Your task to perform on an android device: install app "Walmart Shopping & Grocery" Image 0: 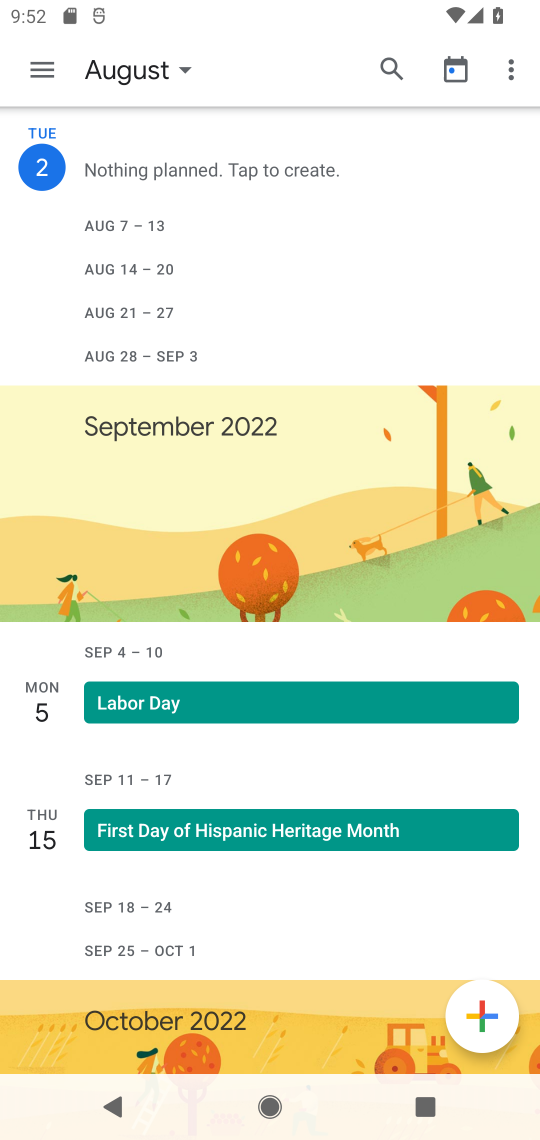
Step 0: press home button
Your task to perform on an android device: install app "Walmart Shopping & Grocery" Image 1: 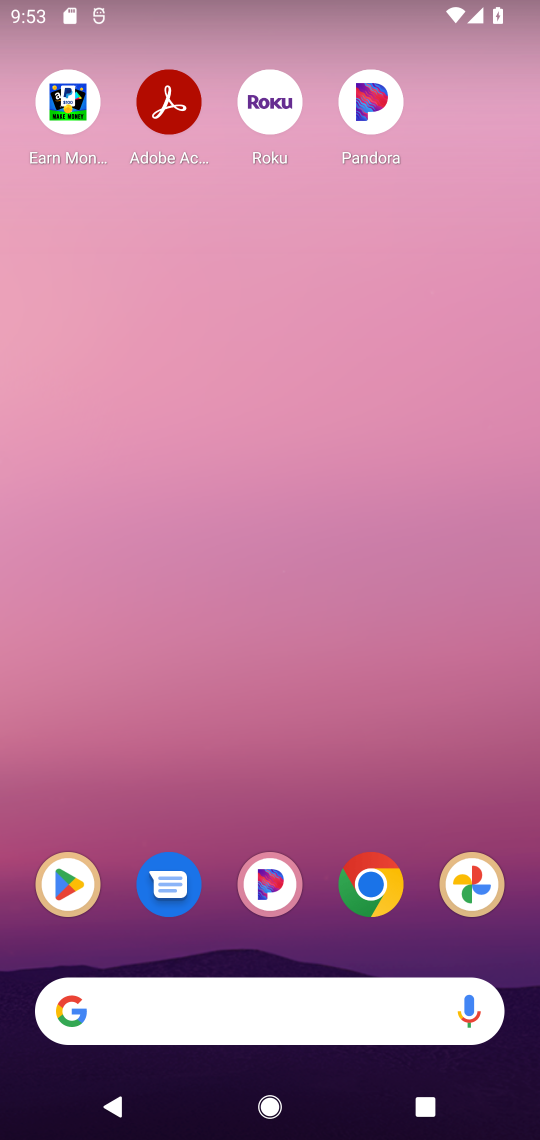
Step 1: click (60, 893)
Your task to perform on an android device: install app "Walmart Shopping & Grocery" Image 2: 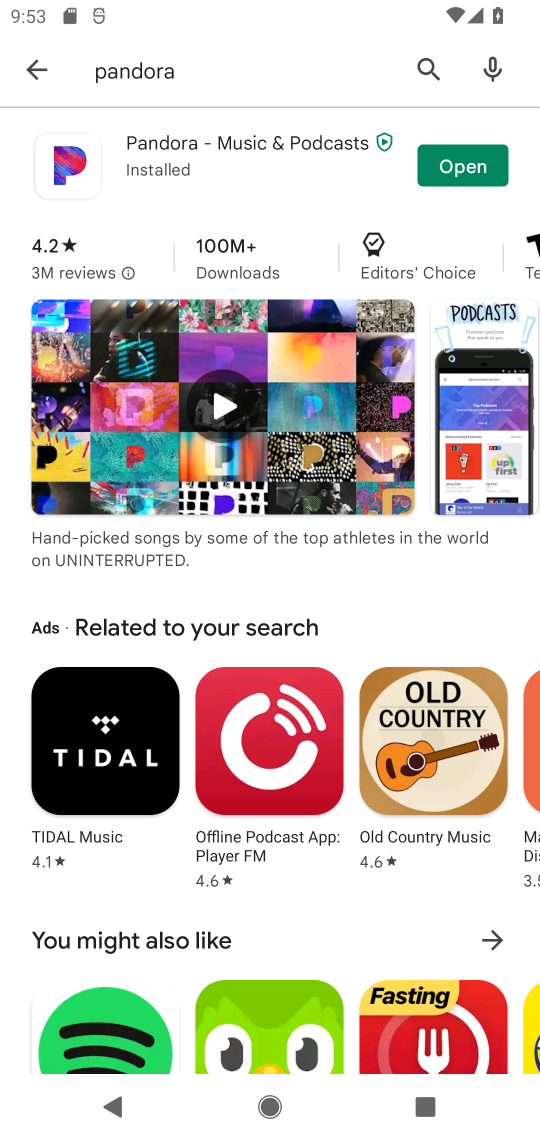
Step 2: click (196, 55)
Your task to perform on an android device: install app "Walmart Shopping & Grocery" Image 3: 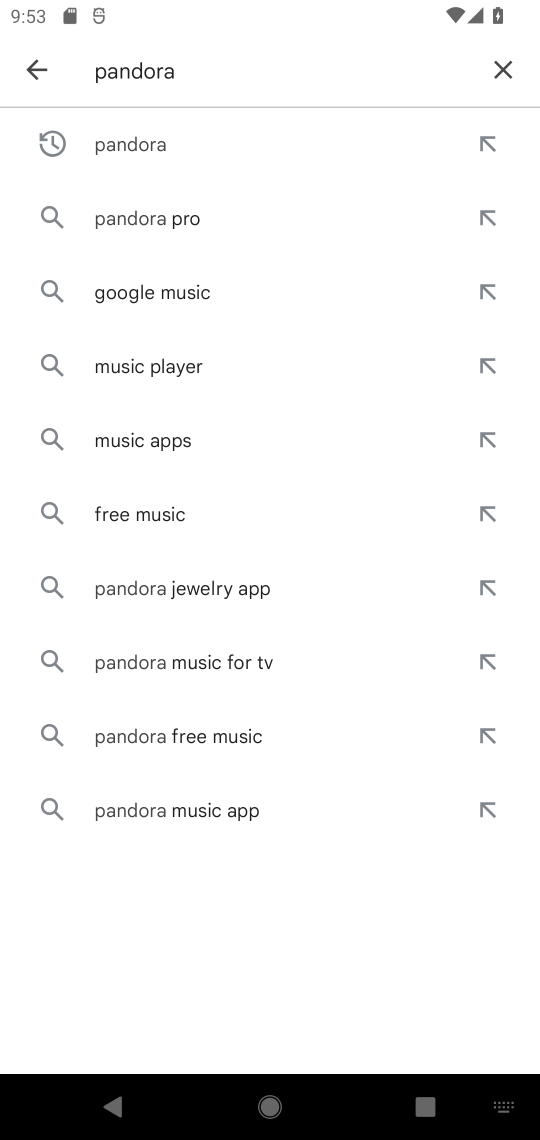
Step 3: click (505, 65)
Your task to perform on an android device: install app "Walmart Shopping & Grocery" Image 4: 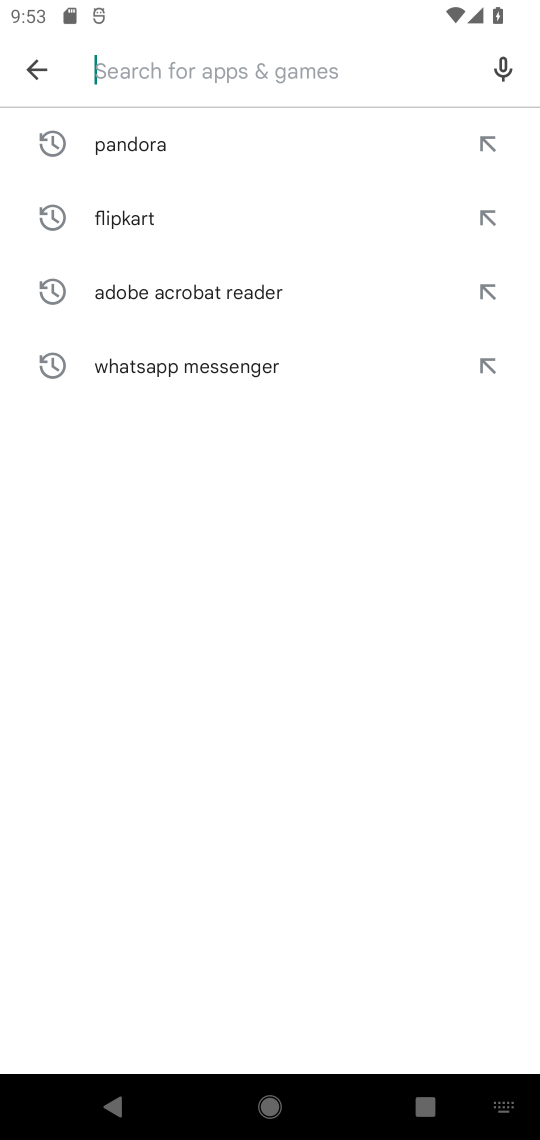
Step 4: type "walmart"
Your task to perform on an android device: install app "Walmart Shopping & Grocery" Image 5: 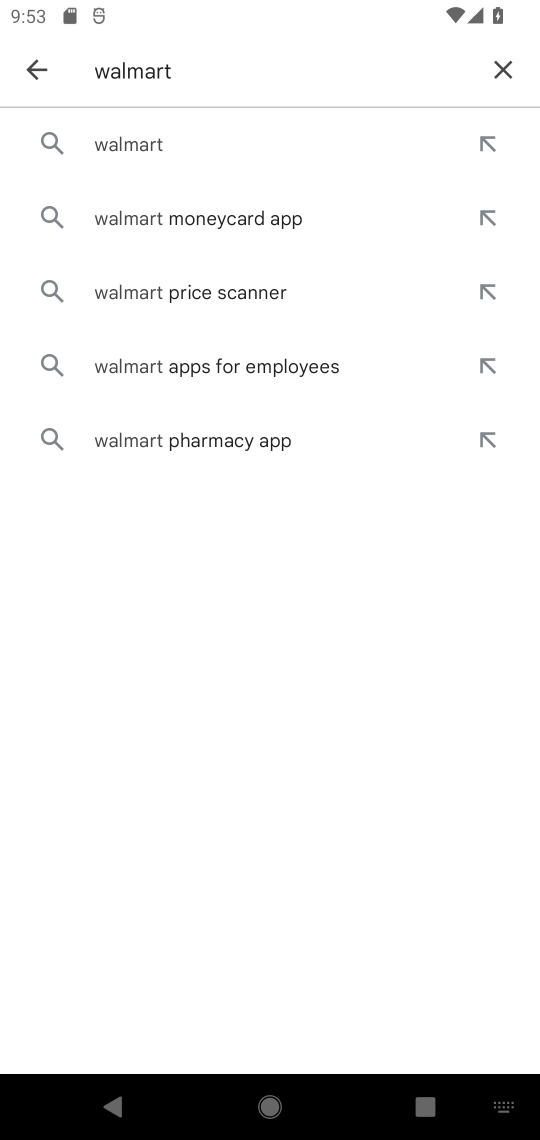
Step 5: click (161, 149)
Your task to perform on an android device: install app "Walmart Shopping & Grocery" Image 6: 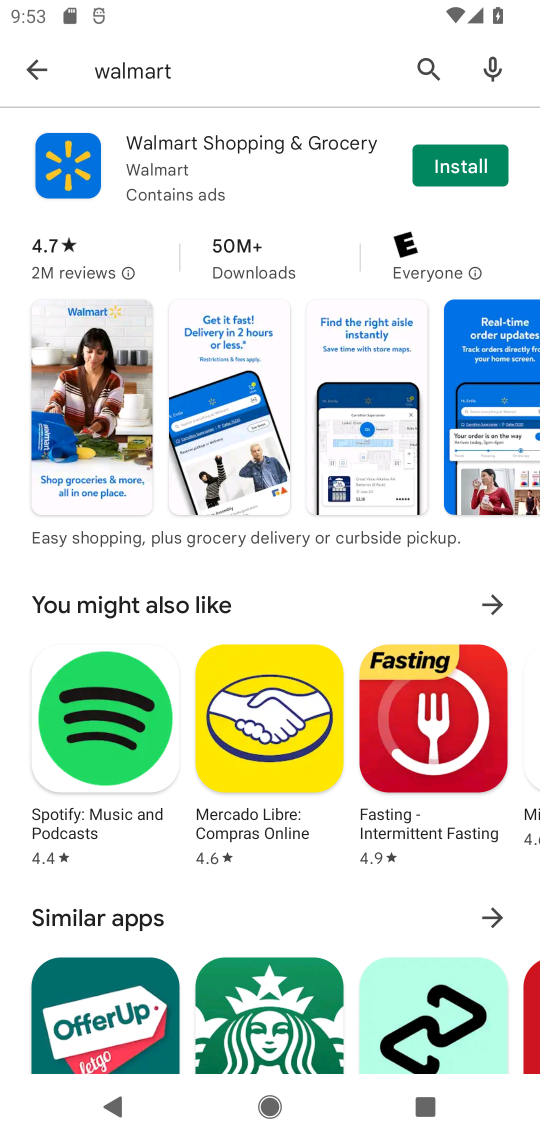
Step 6: click (461, 157)
Your task to perform on an android device: install app "Walmart Shopping & Grocery" Image 7: 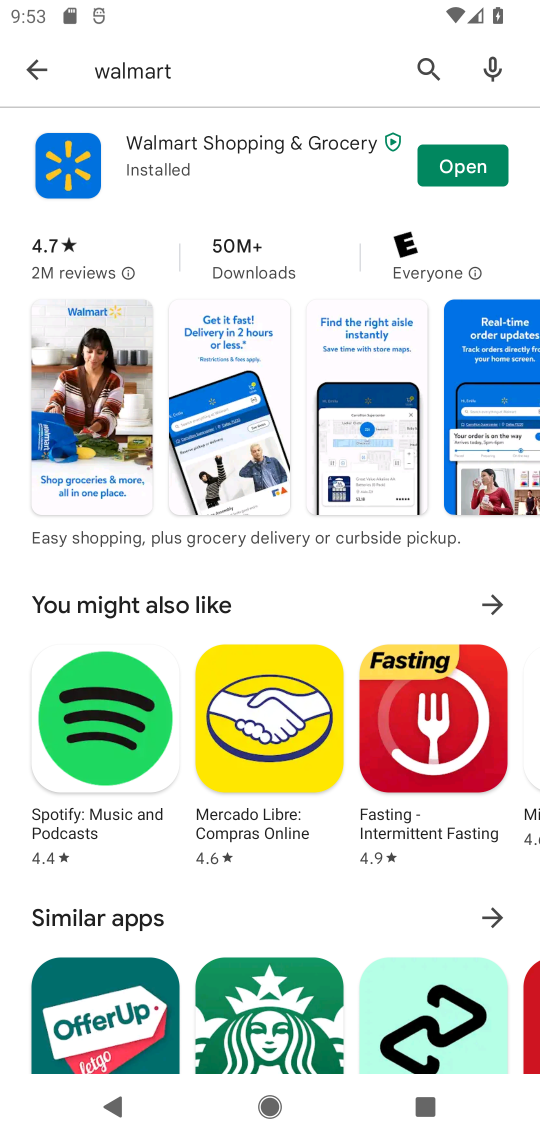
Step 7: click (471, 153)
Your task to perform on an android device: install app "Walmart Shopping & Grocery" Image 8: 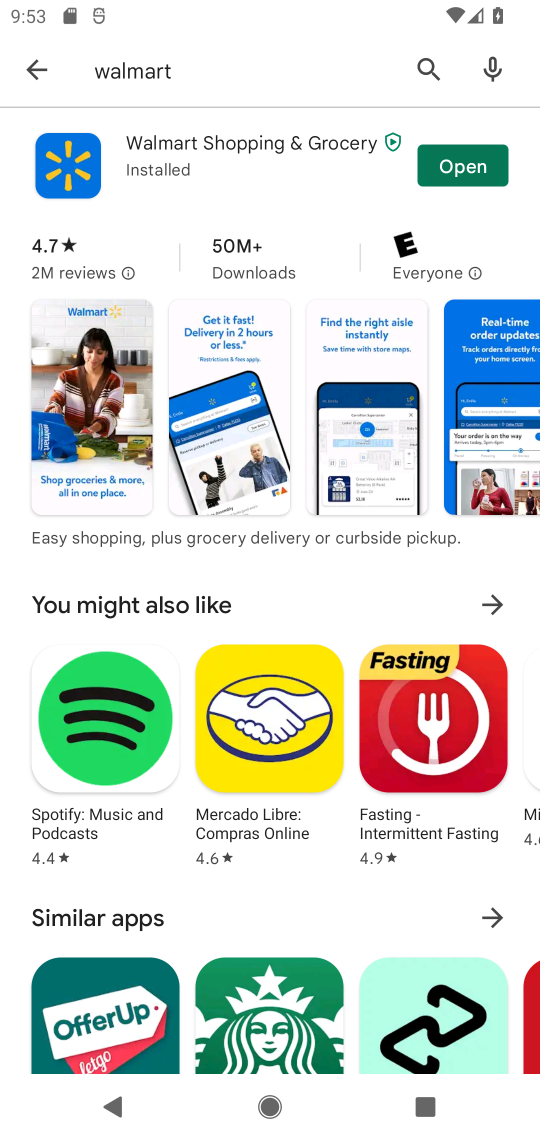
Step 8: task complete